Your task to perform on an android device: Search for razer kraken on newegg, select the first entry, add it to the cart, then select checkout. Image 0: 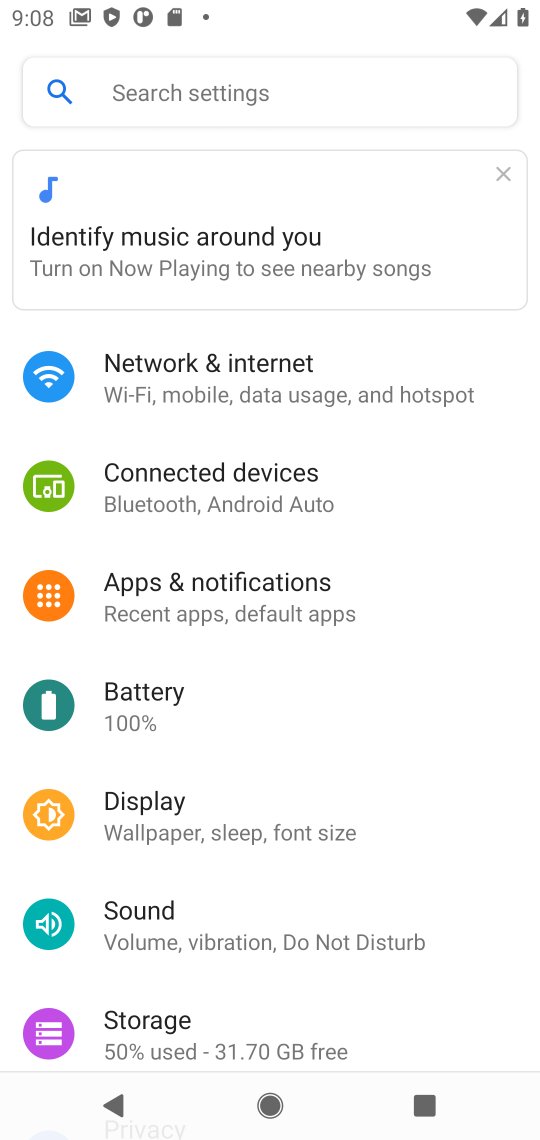
Step 0: press home button
Your task to perform on an android device: Search for razer kraken on newegg, select the first entry, add it to the cart, then select checkout. Image 1: 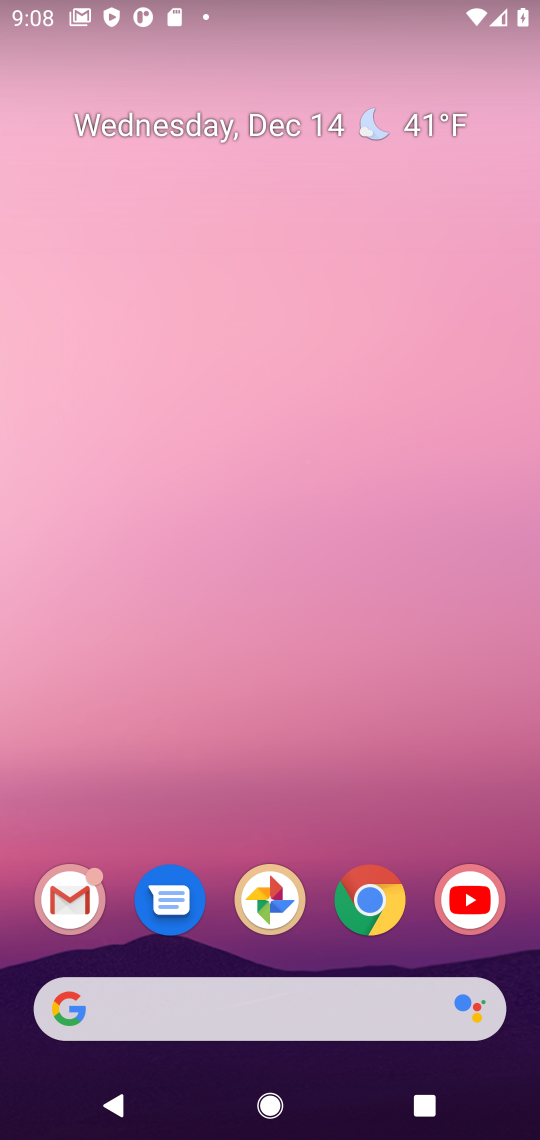
Step 1: click (356, 902)
Your task to perform on an android device: Search for razer kraken on newegg, select the first entry, add it to the cart, then select checkout. Image 2: 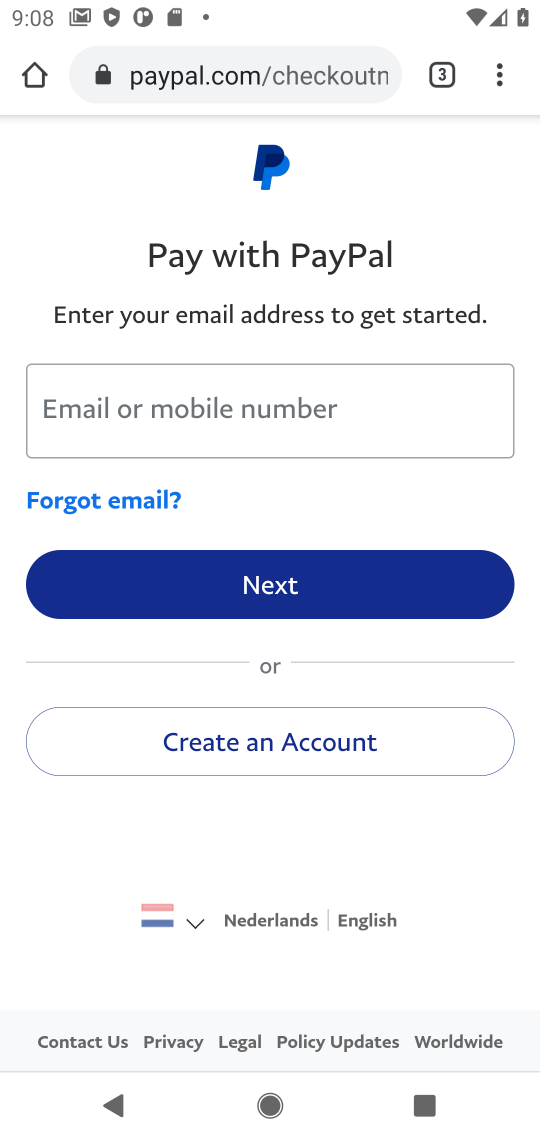
Step 2: click (235, 81)
Your task to perform on an android device: Search for razer kraken on newegg, select the first entry, add it to the cart, then select checkout. Image 3: 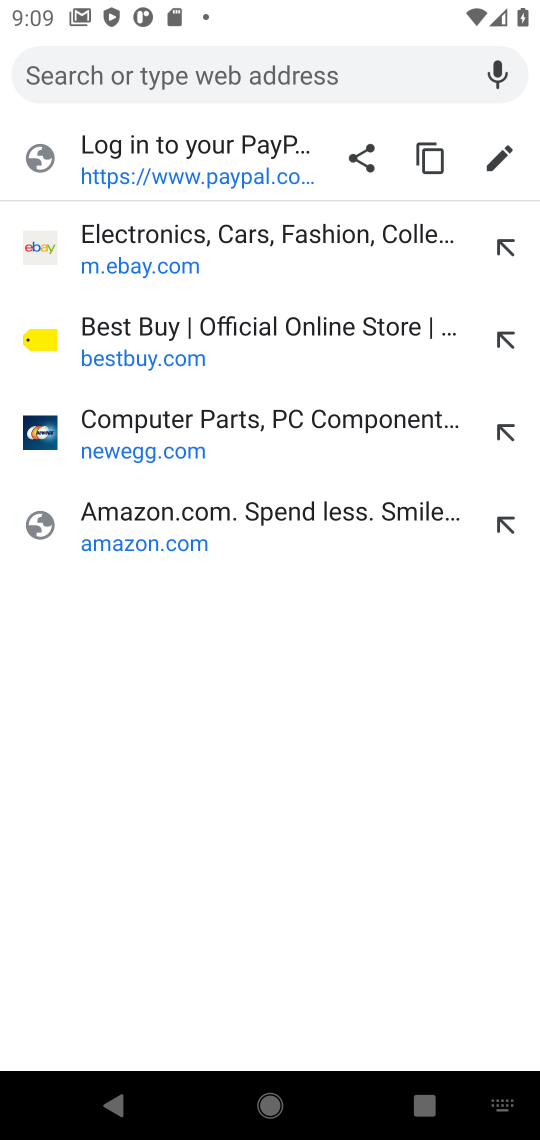
Step 3: click (150, 423)
Your task to perform on an android device: Search for razer kraken on newegg, select the first entry, add it to the cart, then select checkout. Image 4: 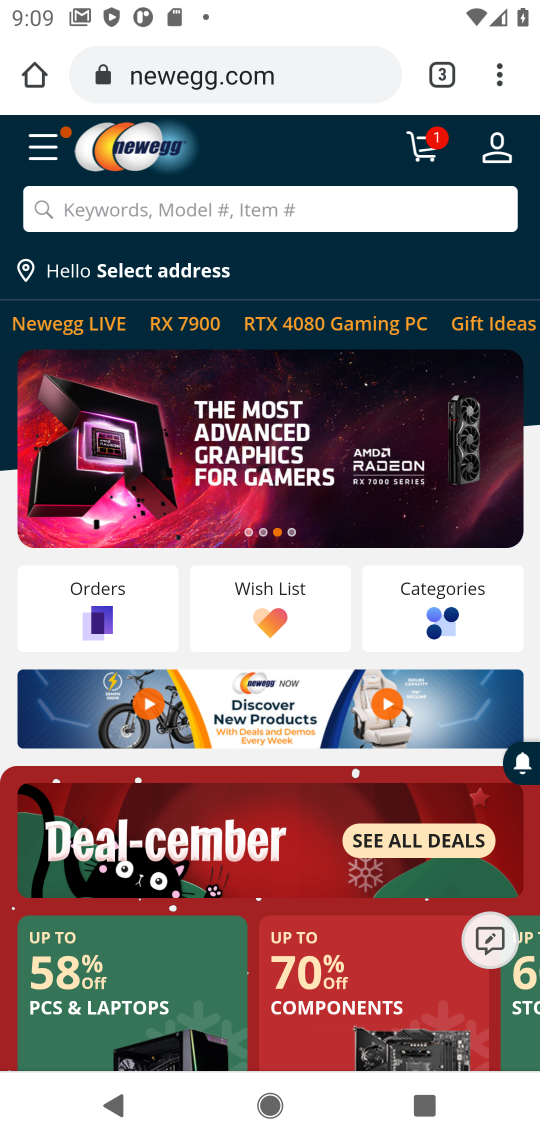
Step 4: click (102, 215)
Your task to perform on an android device: Search for razer kraken on newegg, select the first entry, add it to the cart, then select checkout. Image 5: 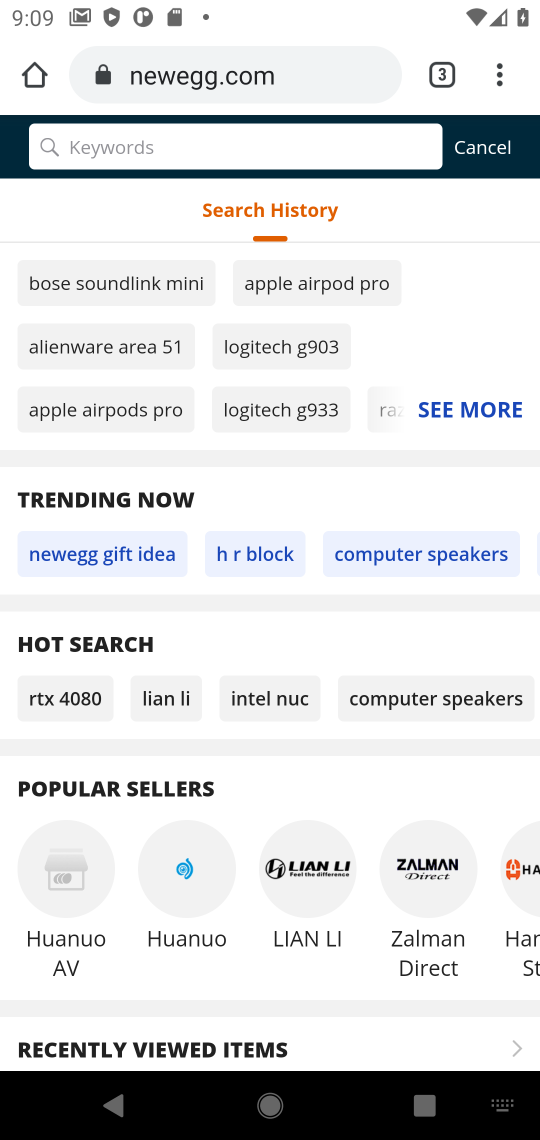
Step 5: type "razer kraken"
Your task to perform on an android device: Search for razer kraken on newegg, select the first entry, add it to the cart, then select checkout. Image 6: 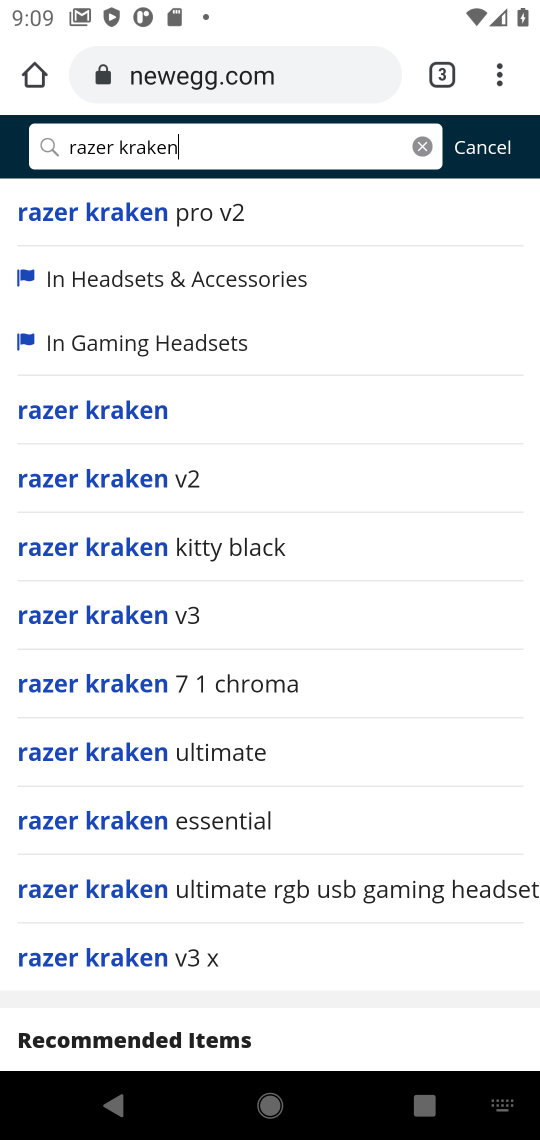
Step 6: click (82, 412)
Your task to perform on an android device: Search for razer kraken on newegg, select the first entry, add it to the cart, then select checkout. Image 7: 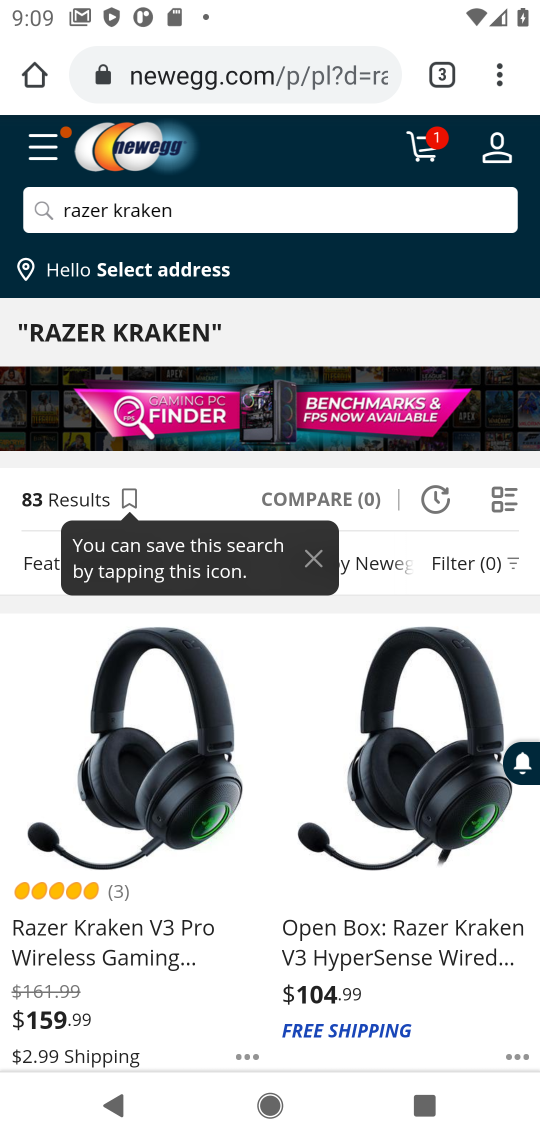
Step 7: click (102, 938)
Your task to perform on an android device: Search for razer kraken on newegg, select the first entry, add it to the cart, then select checkout. Image 8: 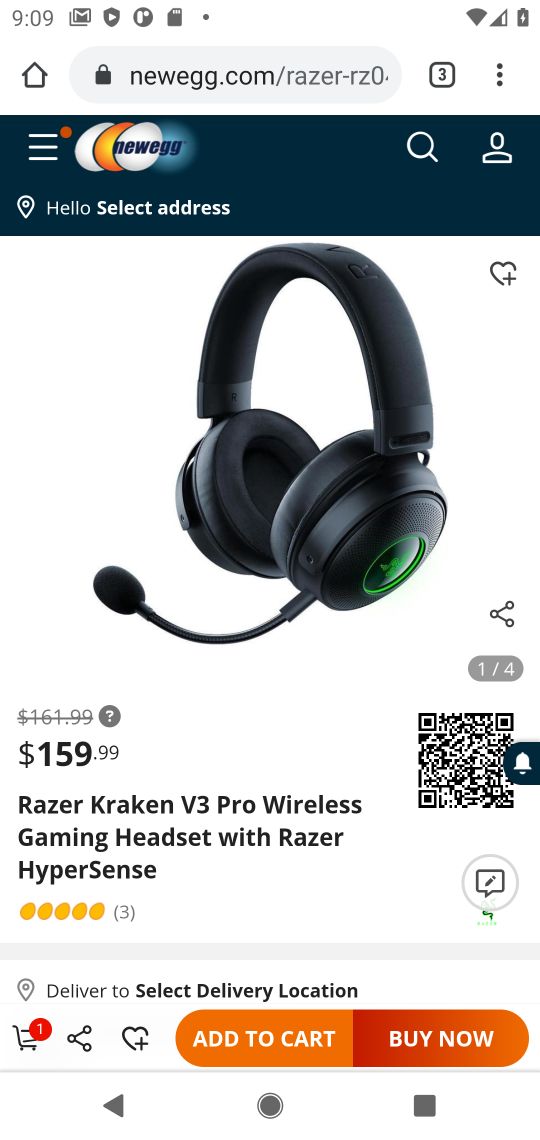
Step 8: click (272, 1039)
Your task to perform on an android device: Search for razer kraken on newegg, select the first entry, add it to the cart, then select checkout. Image 9: 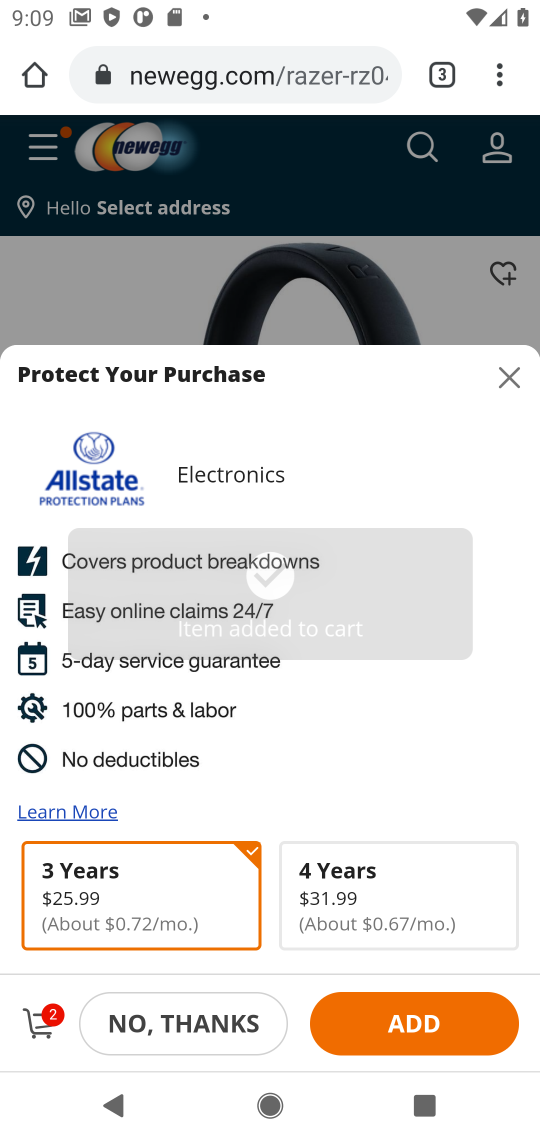
Step 9: click (50, 1028)
Your task to perform on an android device: Search for razer kraken on newegg, select the first entry, add it to the cart, then select checkout. Image 10: 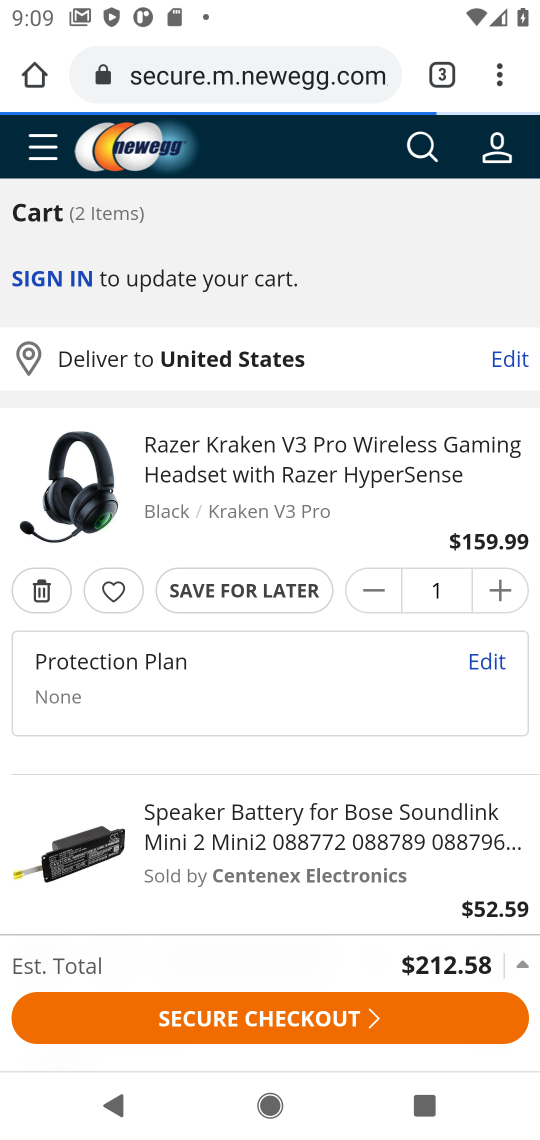
Step 10: click (115, 1018)
Your task to perform on an android device: Search for razer kraken on newegg, select the first entry, add it to the cart, then select checkout. Image 11: 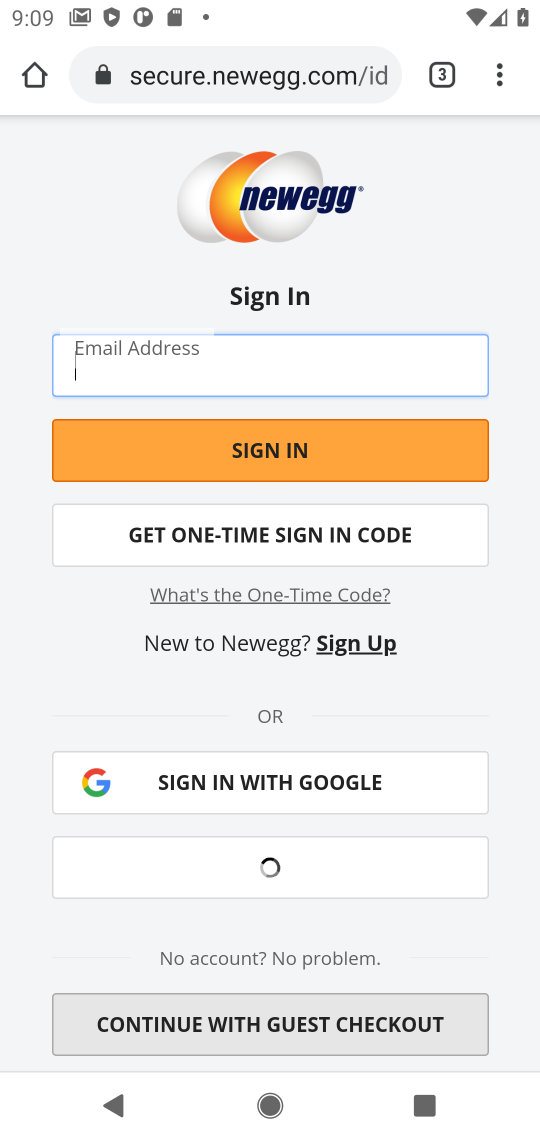
Step 11: task complete